Your task to perform on an android device: Do I have any events tomorrow? Image 0: 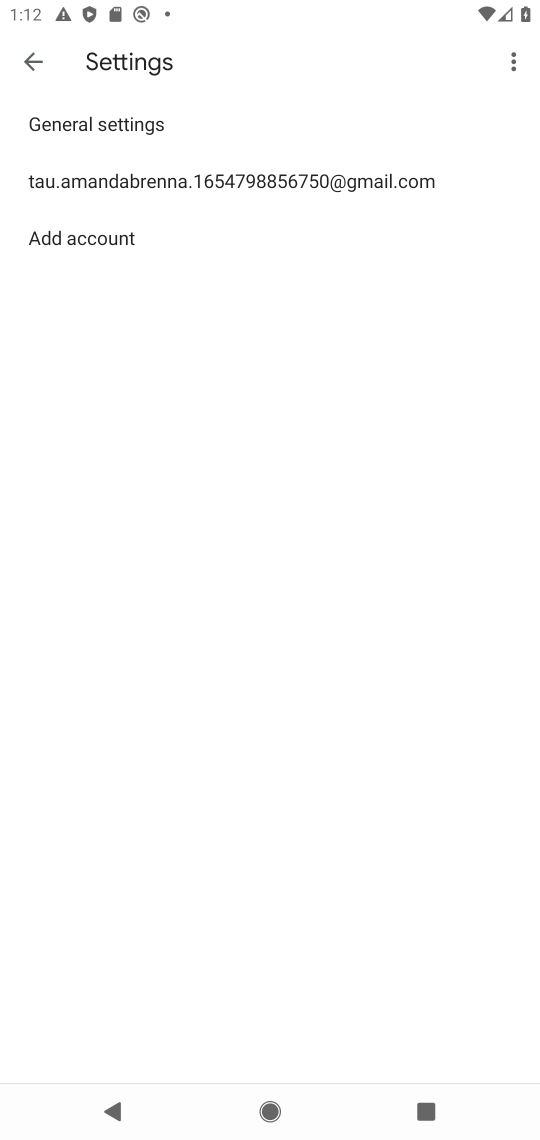
Step 0: press home button
Your task to perform on an android device: Do I have any events tomorrow? Image 1: 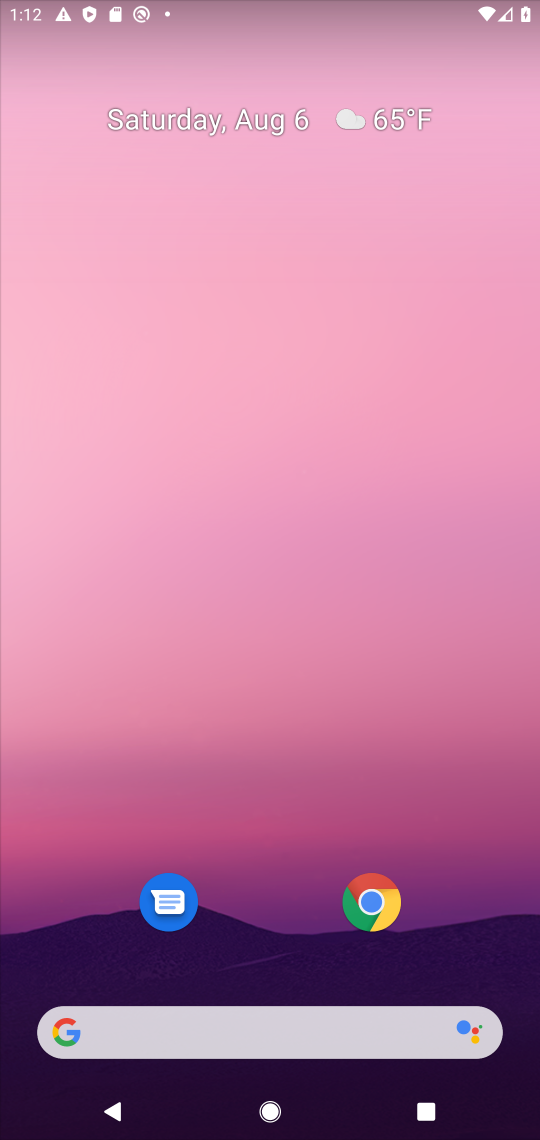
Step 1: drag from (307, 942) to (281, 140)
Your task to perform on an android device: Do I have any events tomorrow? Image 2: 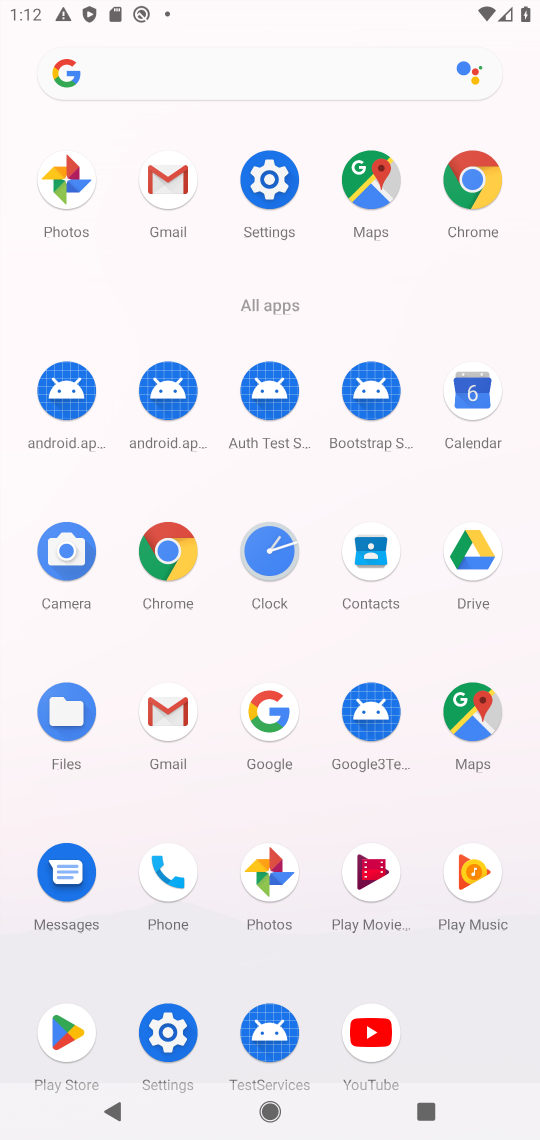
Step 2: click (472, 386)
Your task to perform on an android device: Do I have any events tomorrow? Image 3: 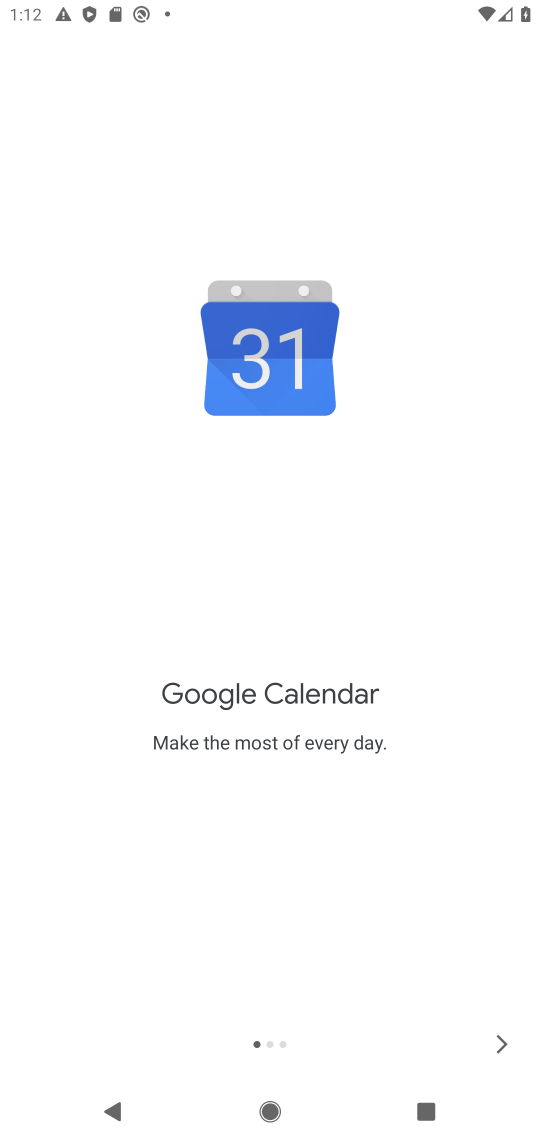
Step 3: click (501, 1051)
Your task to perform on an android device: Do I have any events tomorrow? Image 4: 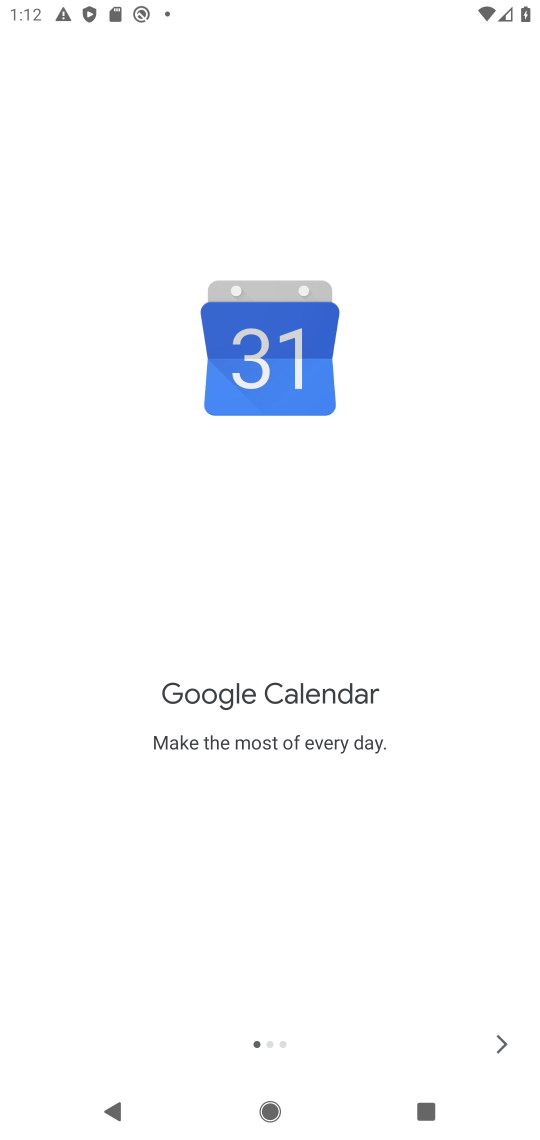
Step 4: click (501, 1051)
Your task to perform on an android device: Do I have any events tomorrow? Image 5: 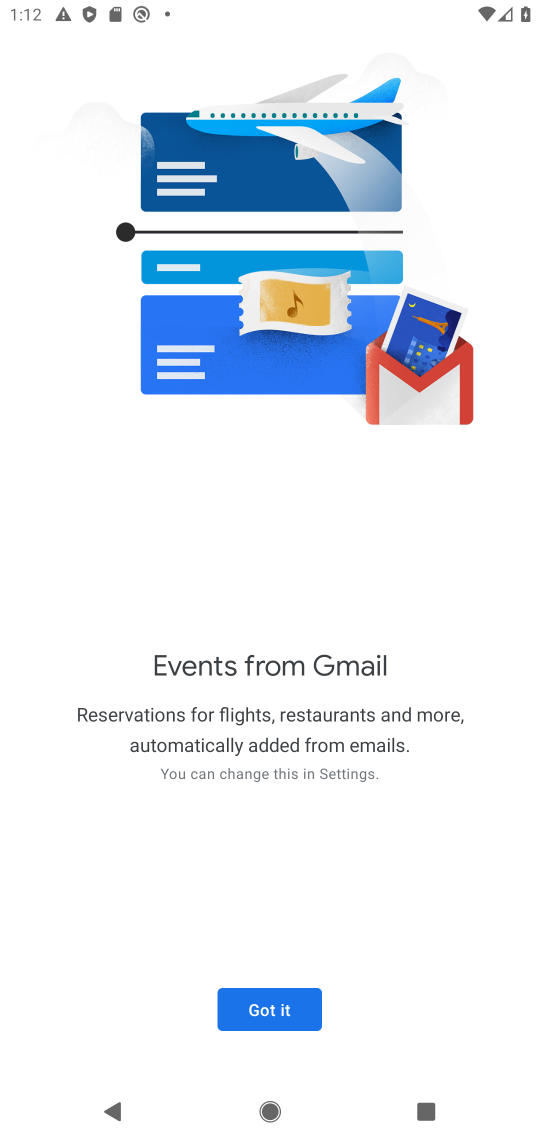
Step 5: click (273, 1010)
Your task to perform on an android device: Do I have any events tomorrow? Image 6: 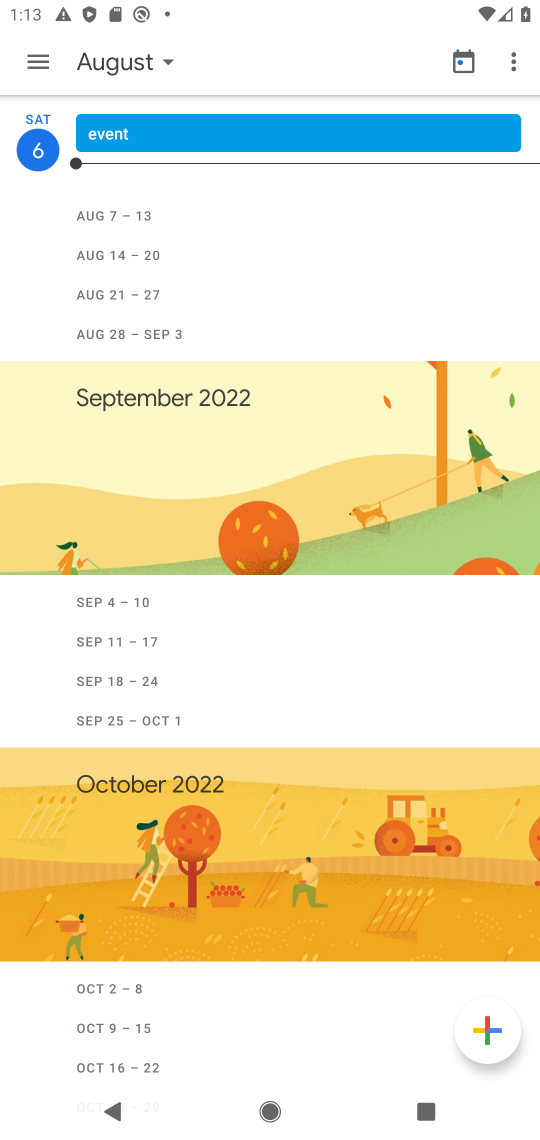
Step 6: click (154, 52)
Your task to perform on an android device: Do I have any events tomorrow? Image 7: 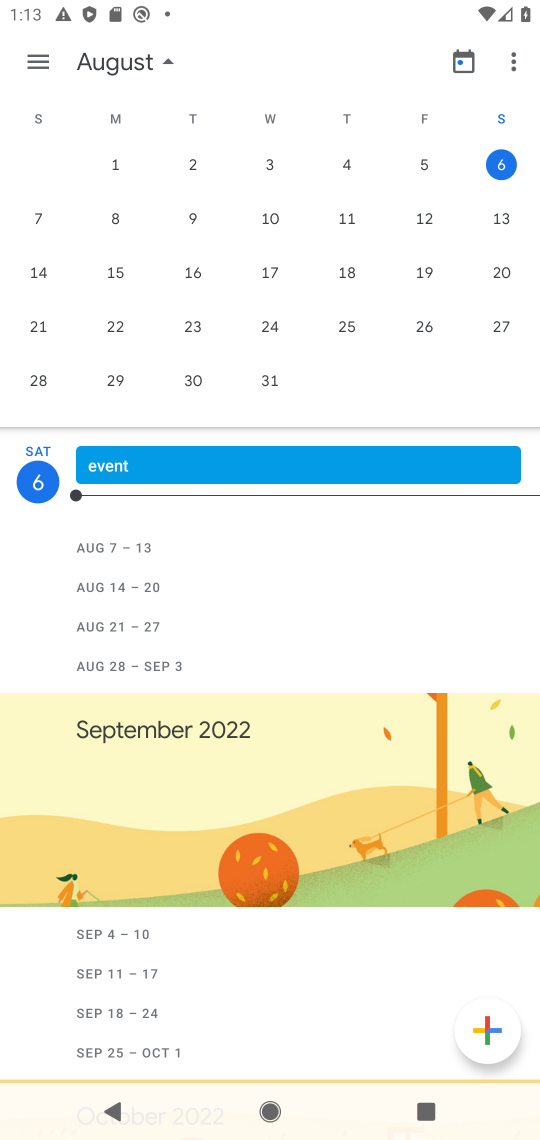
Step 7: click (39, 219)
Your task to perform on an android device: Do I have any events tomorrow? Image 8: 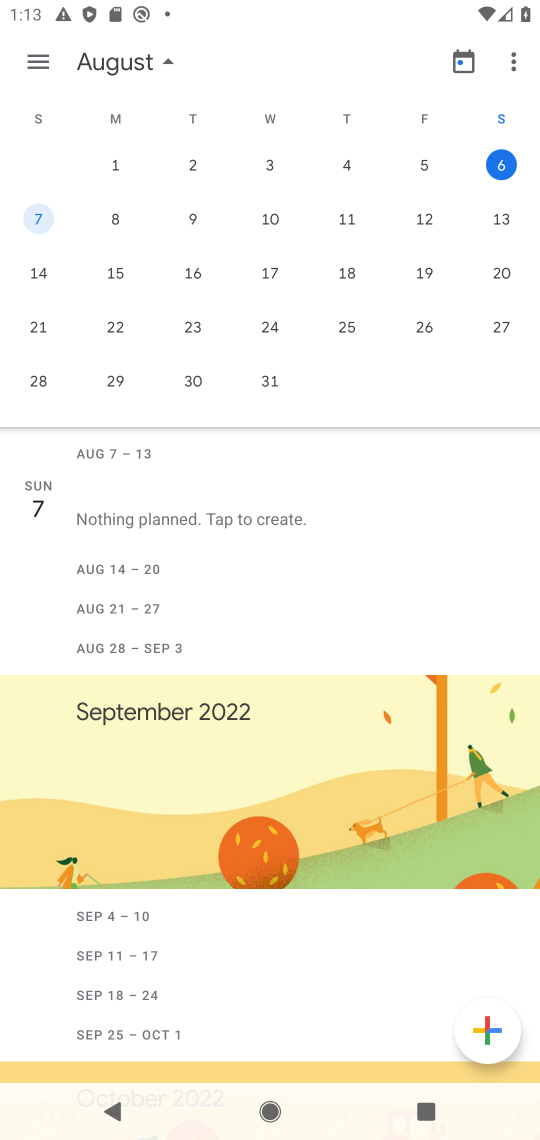
Step 8: click (39, 219)
Your task to perform on an android device: Do I have any events tomorrow? Image 9: 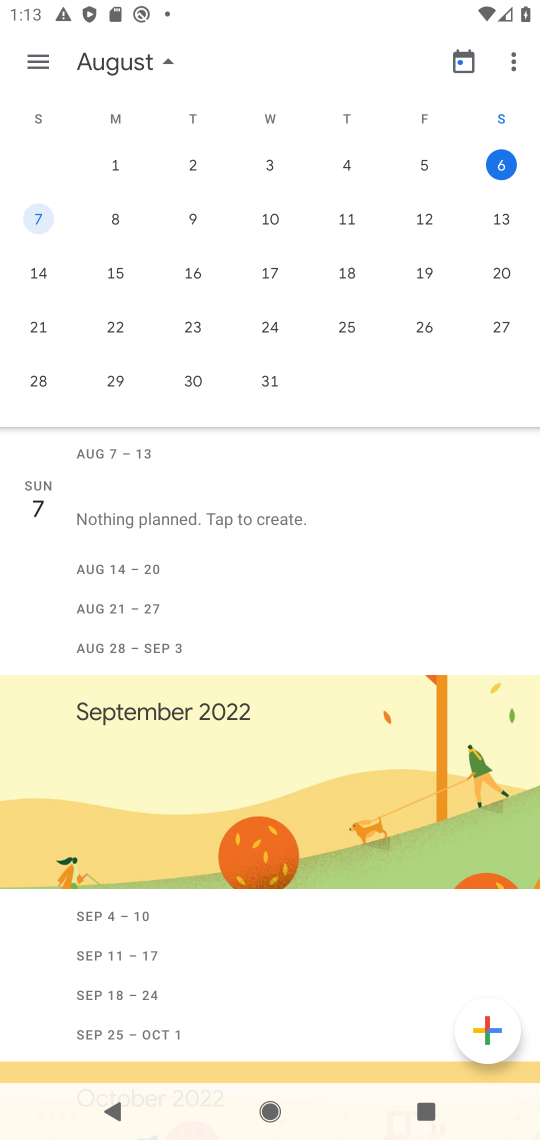
Step 9: click (39, 219)
Your task to perform on an android device: Do I have any events tomorrow? Image 10: 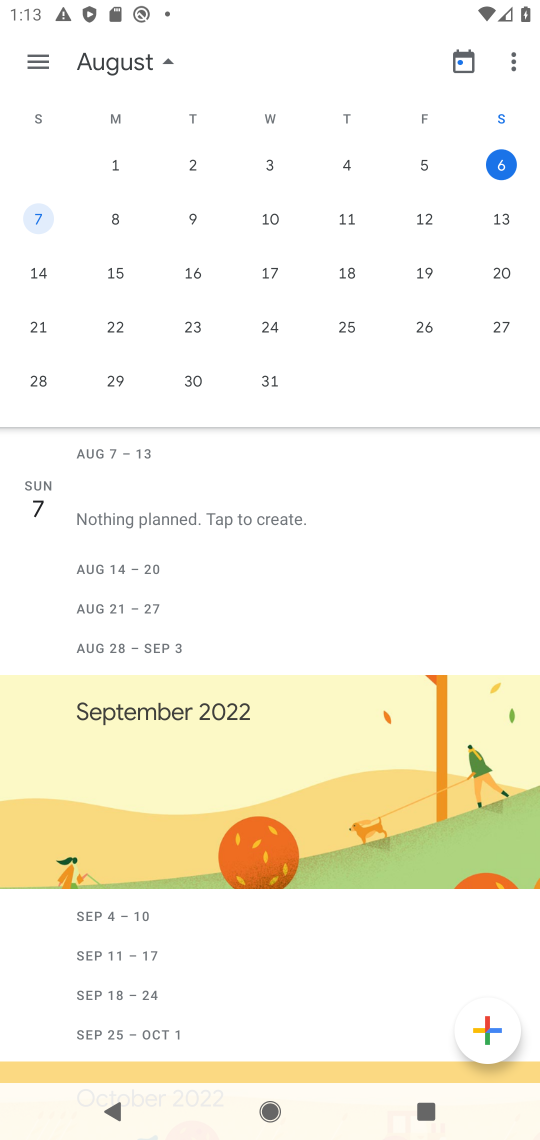
Step 10: click (38, 52)
Your task to perform on an android device: Do I have any events tomorrow? Image 11: 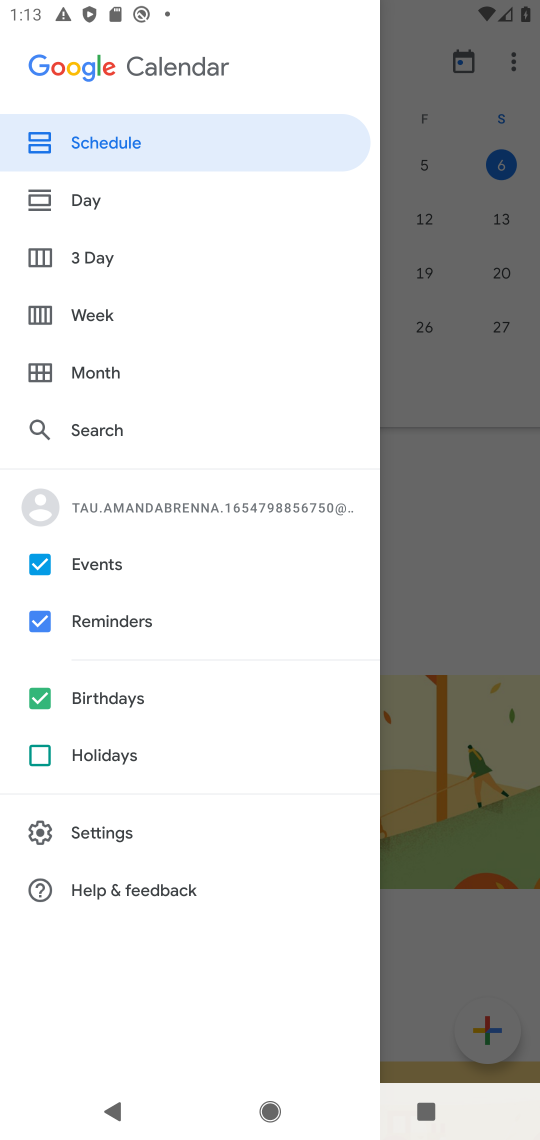
Step 11: click (81, 202)
Your task to perform on an android device: Do I have any events tomorrow? Image 12: 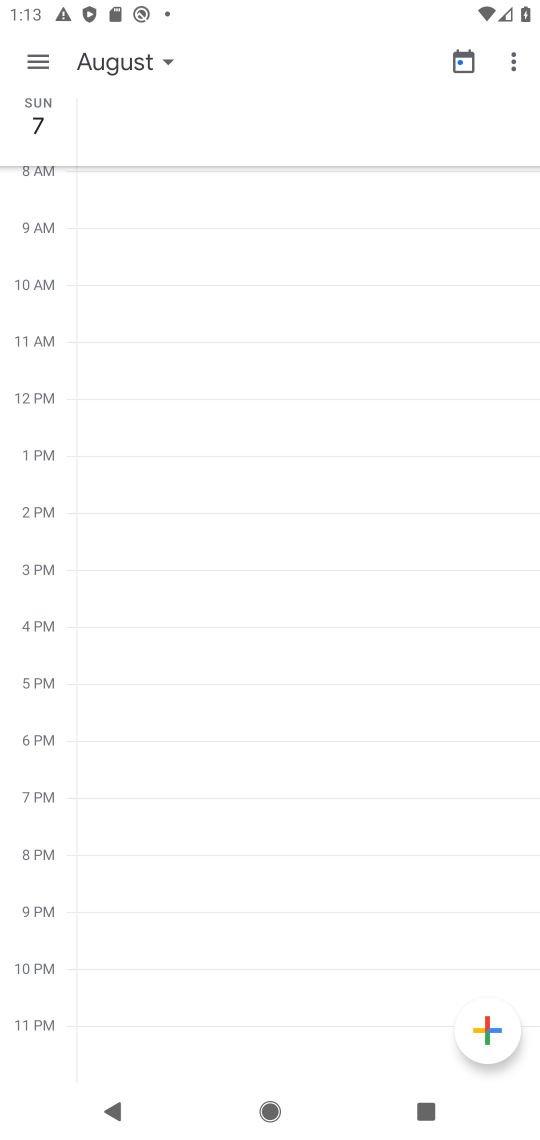
Step 12: task complete